Your task to perform on an android device: What's the weather? Image 0: 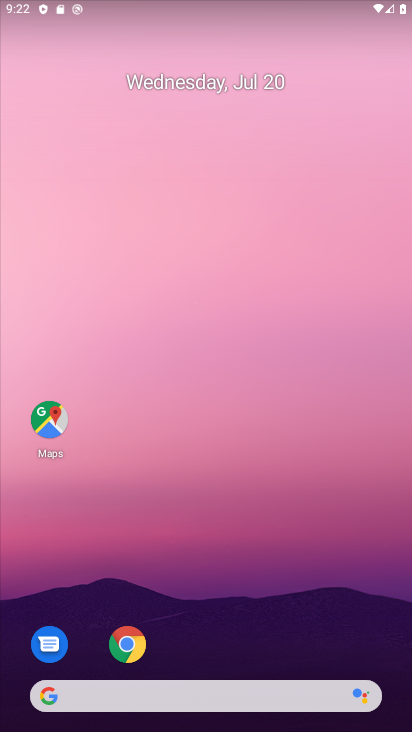
Step 0: click (134, 699)
Your task to perform on an android device: What's the weather? Image 1: 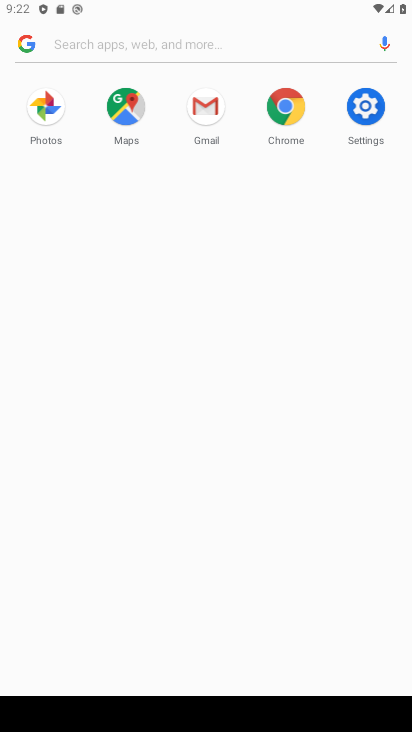
Step 1: type "What's the weather?"
Your task to perform on an android device: What's the weather? Image 2: 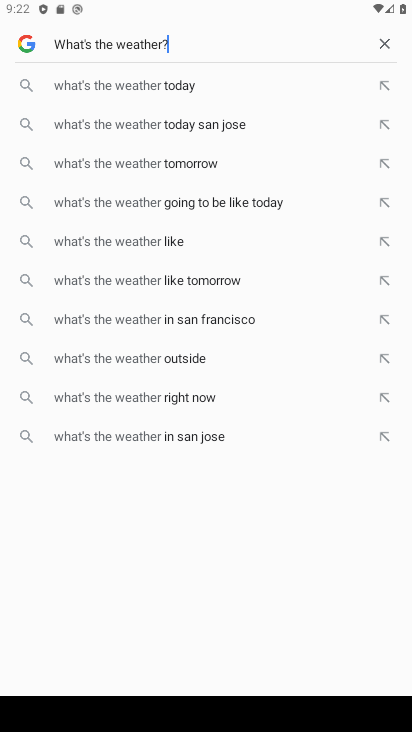
Step 2: press enter
Your task to perform on an android device: What's the weather? Image 3: 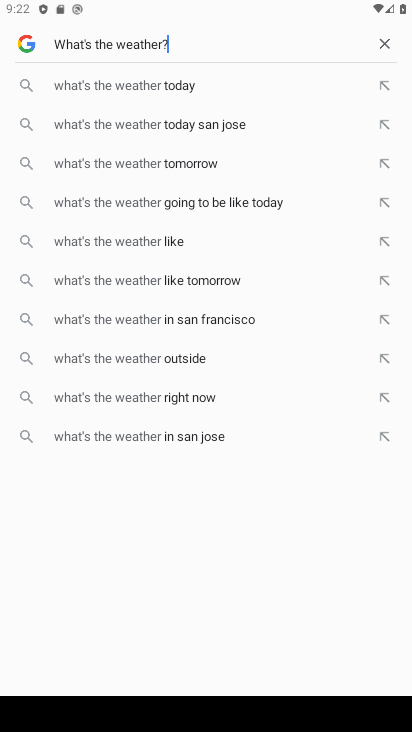
Step 3: type ""
Your task to perform on an android device: What's the weather? Image 4: 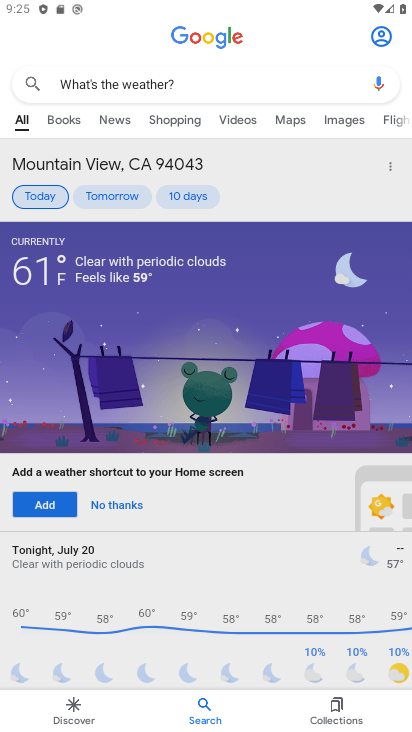
Step 4: task complete